Your task to perform on an android device: Go to display settings Image 0: 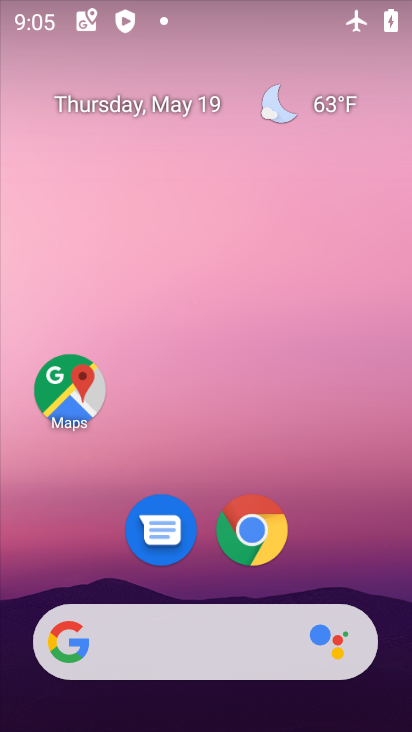
Step 0: drag from (267, 714) to (367, 375)
Your task to perform on an android device: Go to display settings Image 1: 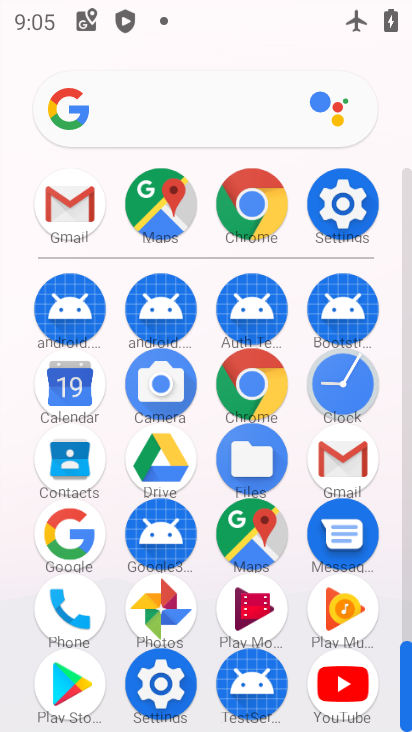
Step 1: click (354, 200)
Your task to perform on an android device: Go to display settings Image 2: 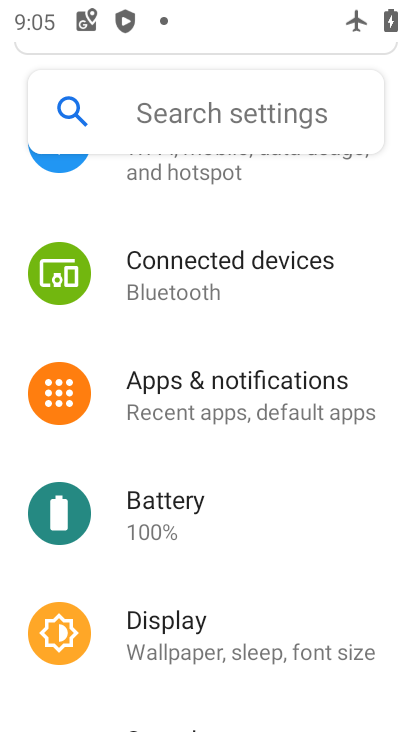
Step 2: click (228, 616)
Your task to perform on an android device: Go to display settings Image 3: 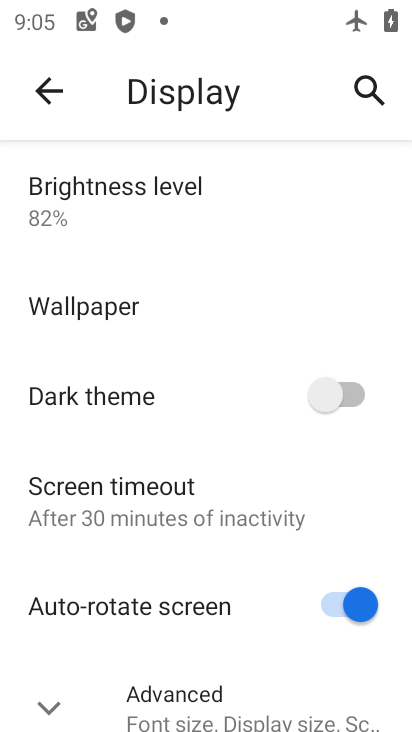
Step 3: task complete